Your task to perform on an android device: Show me popular games on the Play Store Image 0: 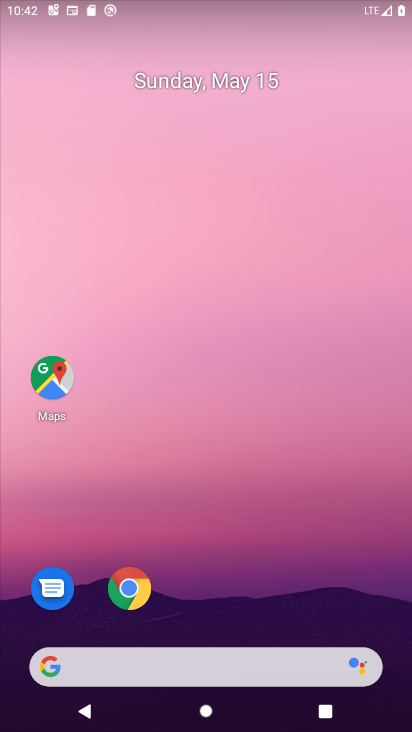
Step 0: drag from (268, 598) to (282, 111)
Your task to perform on an android device: Show me popular games on the Play Store Image 1: 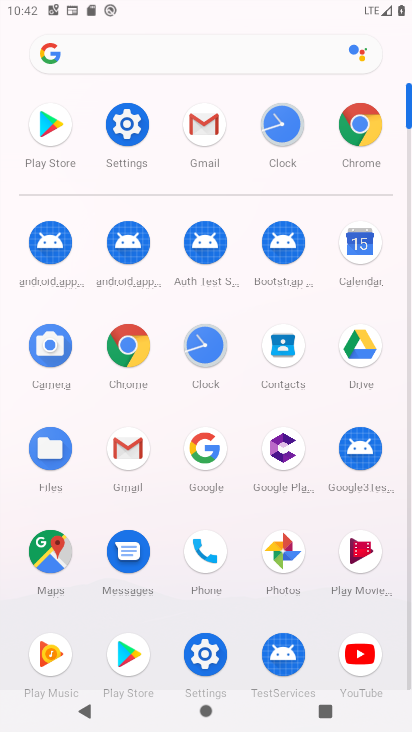
Step 1: click (120, 649)
Your task to perform on an android device: Show me popular games on the Play Store Image 2: 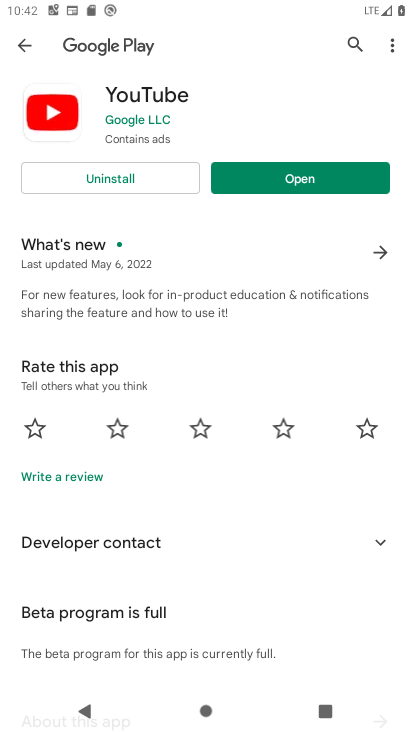
Step 2: click (25, 42)
Your task to perform on an android device: Show me popular games on the Play Store Image 3: 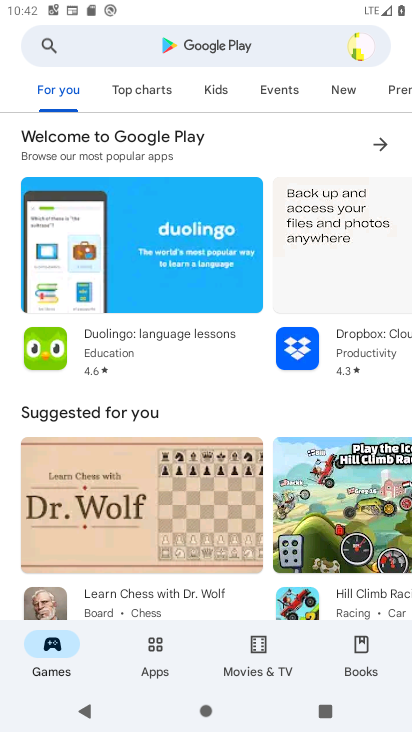
Step 3: click (149, 52)
Your task to perform on an android device: Show me popular games on the Play Store Image 4: 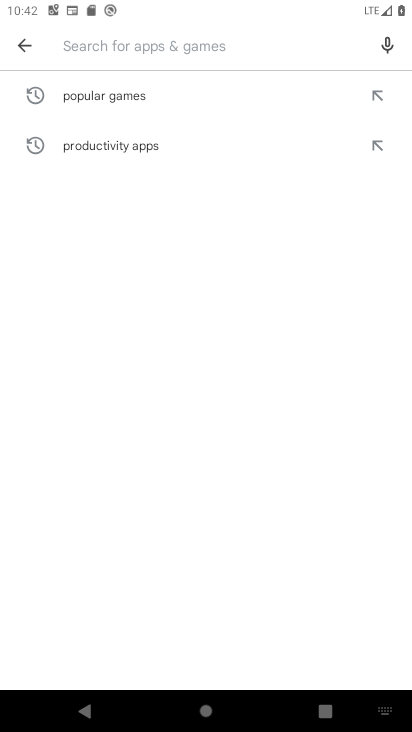
Step 4: click (143, 93)
Your task to perform on an android device: Show me popular games on the Play Store Image 5: 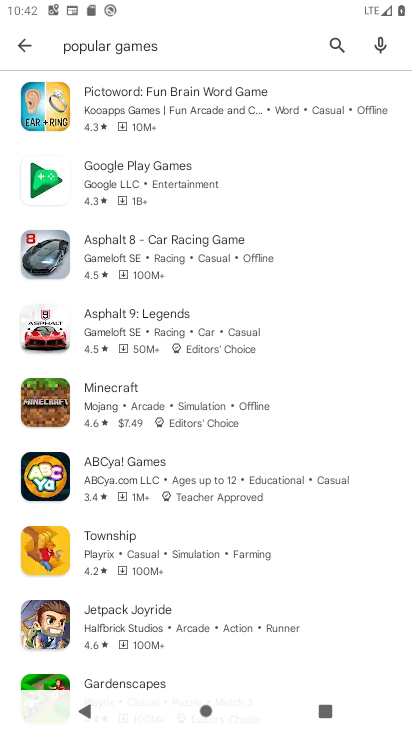
Step 5: task complete